Your task to perform on an android device: check data usage Image 0: 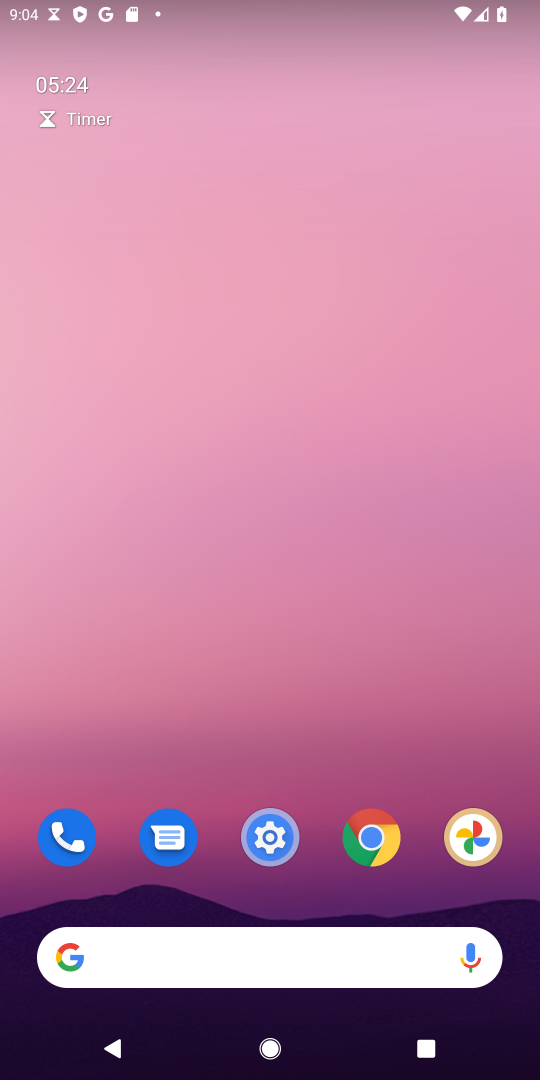
Step 0: drag from (318, 912) to (290, 150)
Your task to perform on an android device: check data usage Image 1: 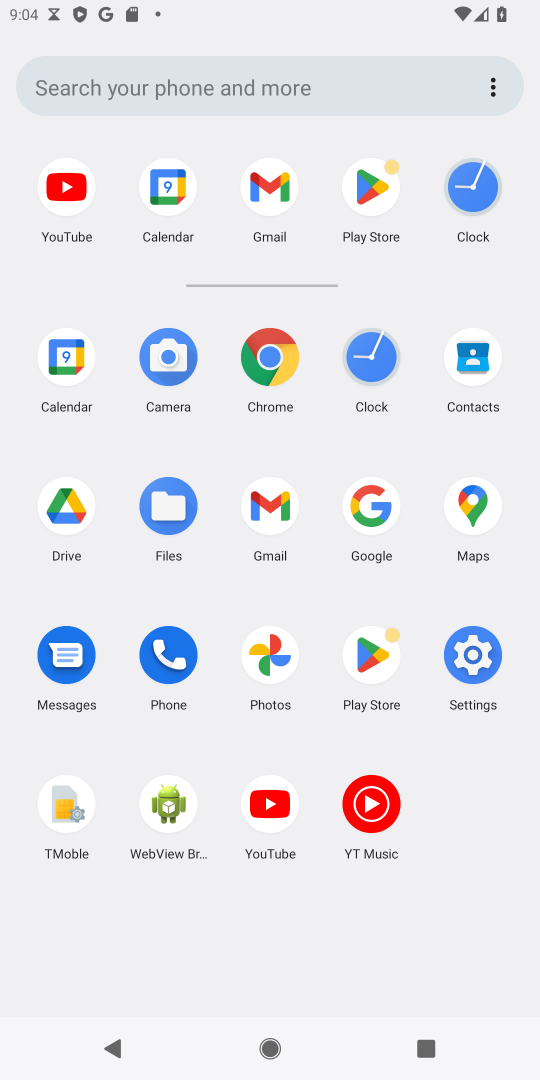
Step 1: click (471, 646)
Your task to perform on an android device: check data usage Image 2: 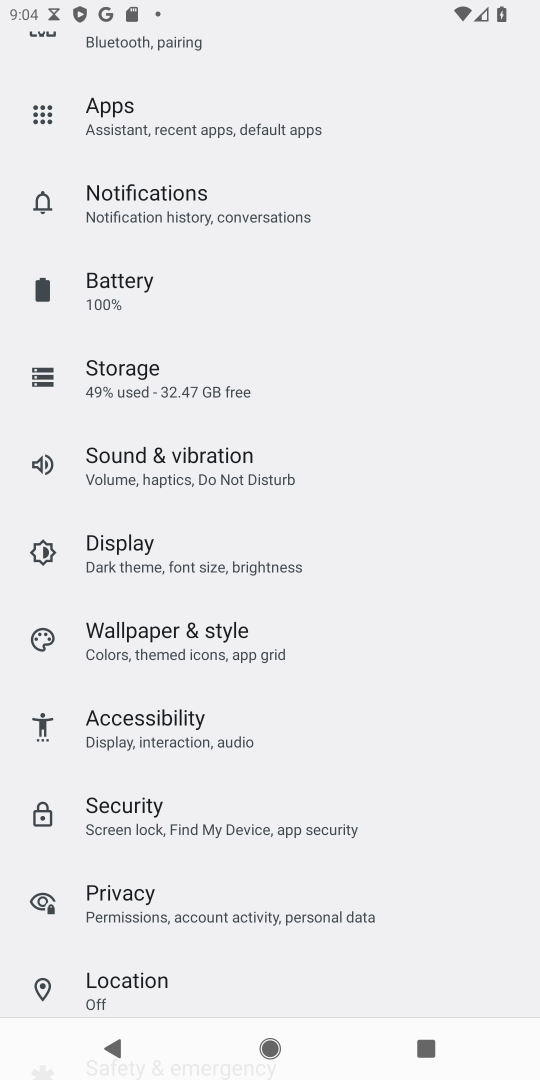
Step 2: drag from (165, 134) to (172, 757)
Your task to perform on an android device: check data usage Image 3: 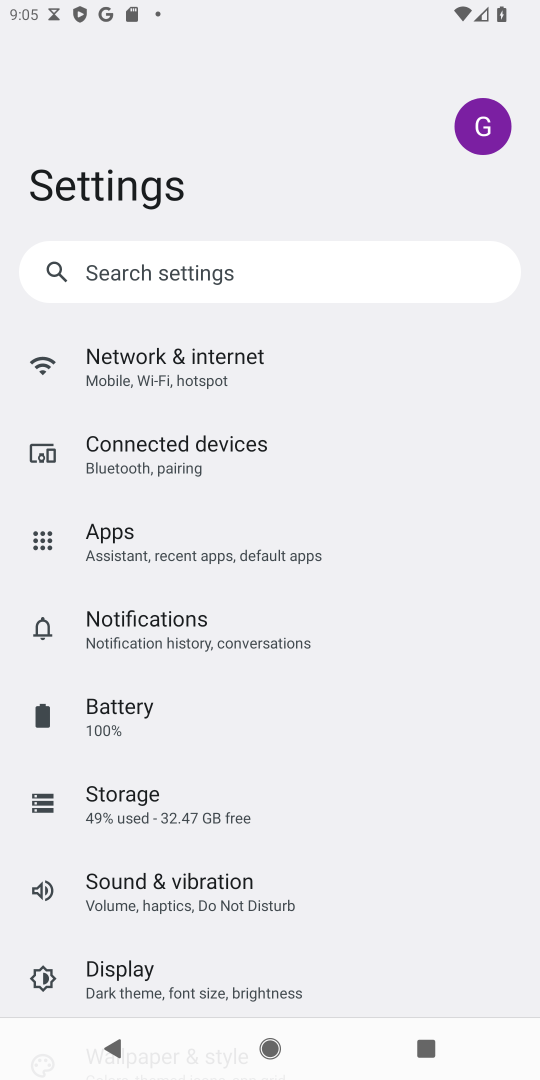
Step 3: click (159, 370)
Your task to perform on an android device: check data usage Image 4: 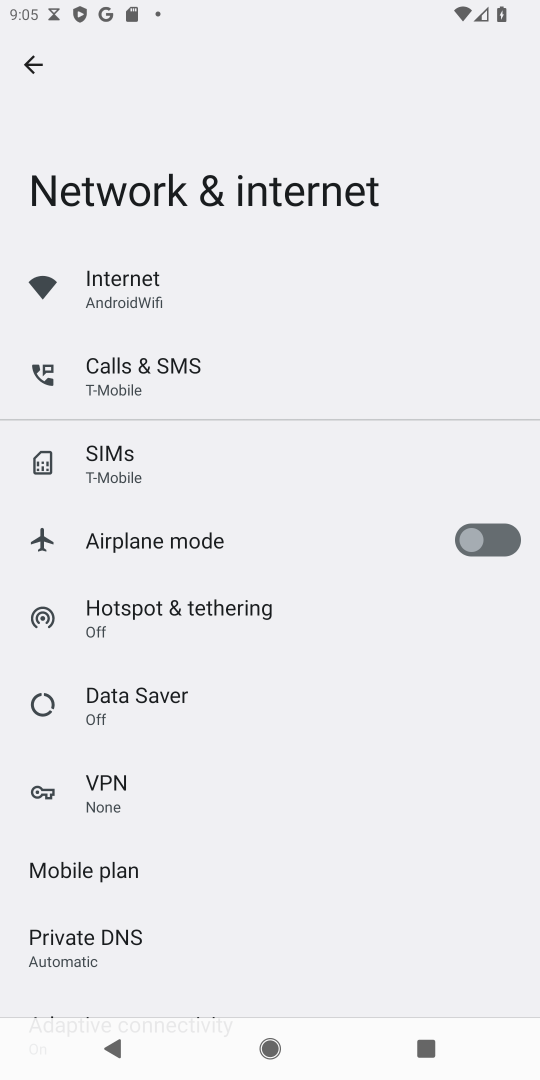
Step 4: click (136, 296)
Your task to perform on an android device: check data usage Image 5: 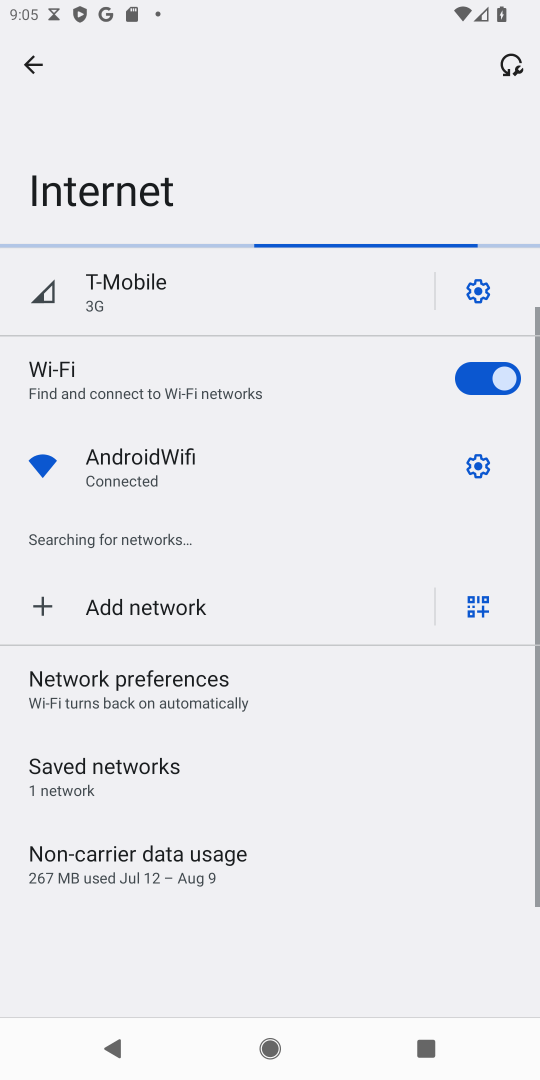
Step 5: click (126, 855)
Your task to perform on an android device: check data usage Image 6: 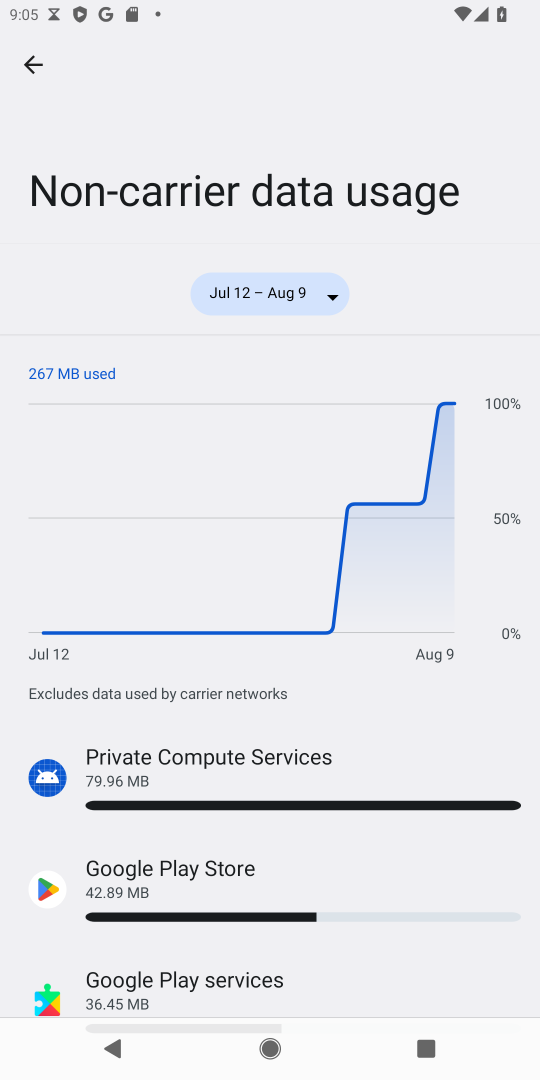
Step 6: task complete